Your task to perform on an android device: turn off wifi Image 0: 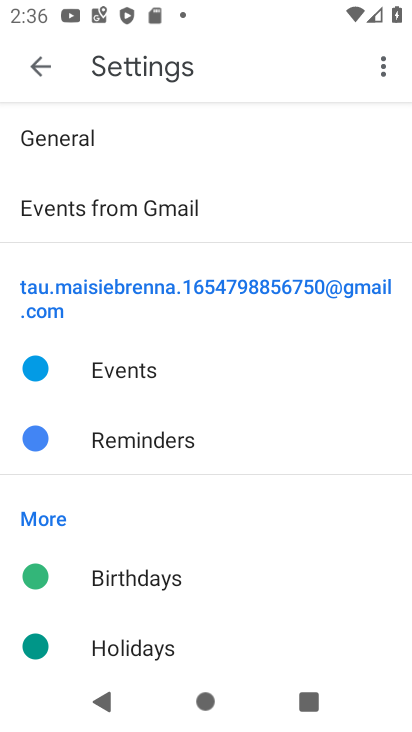
Step 0: press home button
Your task to perform on an android device: turn off wifi Image 1: 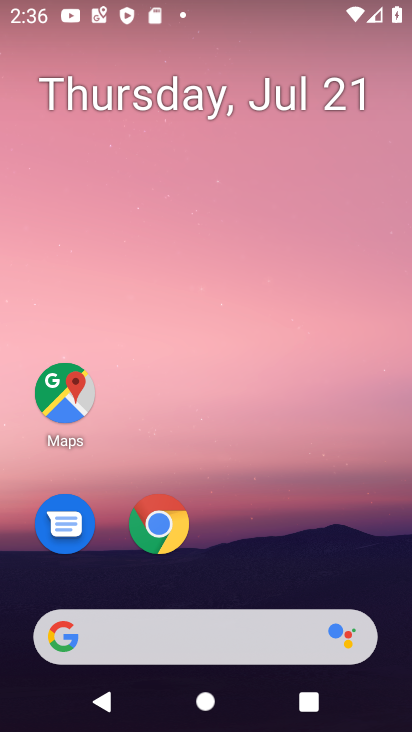
Step 1: drag from (259, 513) to (209, 25)
Your task to perform on an android device: turn off wifi Image 2: 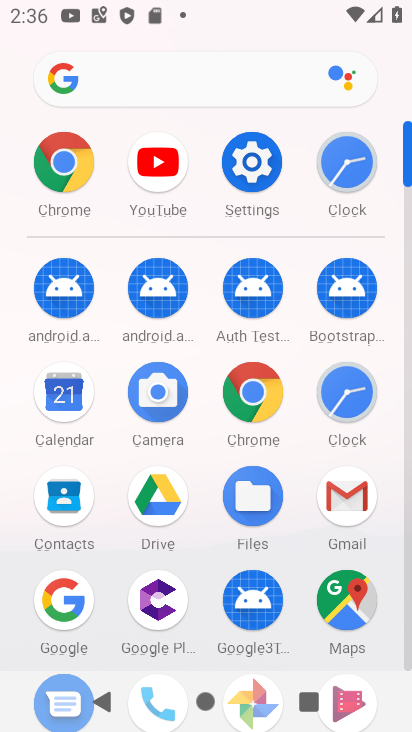
Step 2: click (241, 152)
Your task to perform on an android device: turn off wifi Image 3: 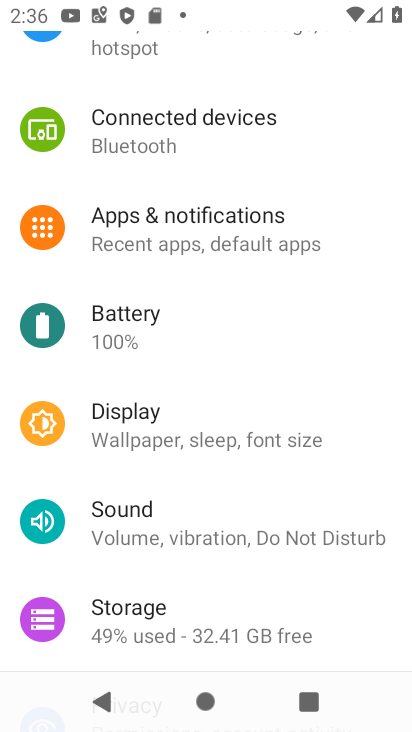
Step 3: drag from (248, 175) to (276, 571)
Your task to perform on an android device: turn off wifi Image 4: 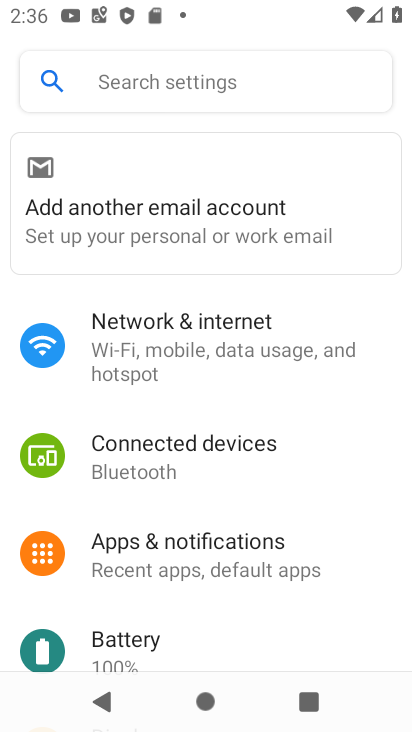
Step 4: click (250, 341)
Your task to perform on an android device: turn off wifi Image 5: 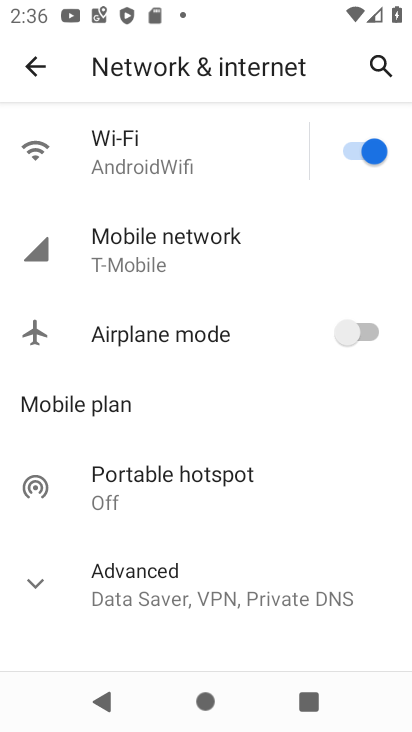
Step 5: click (358, 149)
Your task to perform on an android device: turn off wifi Image 6: 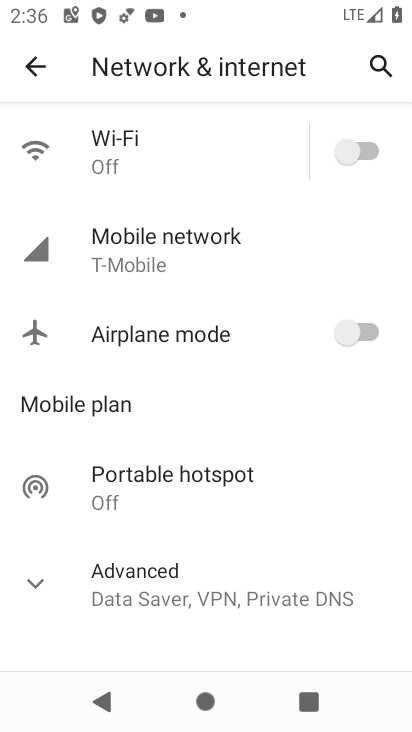
Step 6: task complete